Your task to perform on an android device: Open CNN.com Image 0: 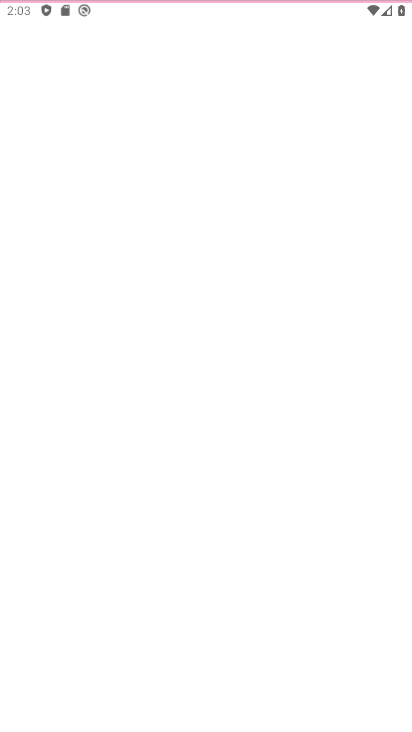
Step 0: click (201, 23)
Your task to perform on an android device: Open CNN.com Image 1: 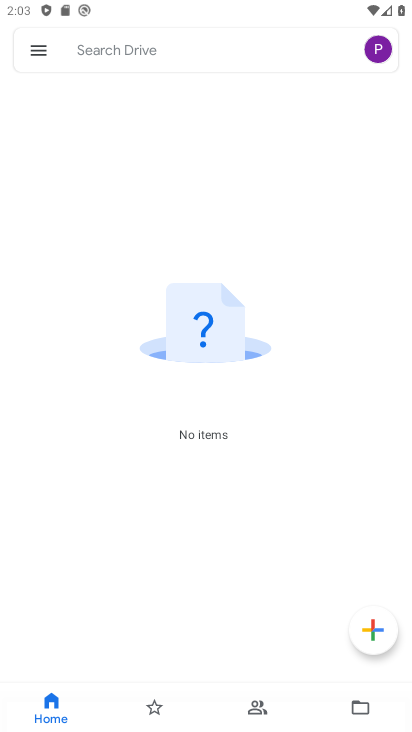
Step 1: press home button
Your task to perform on an android device: Open CNN.com Image 2: 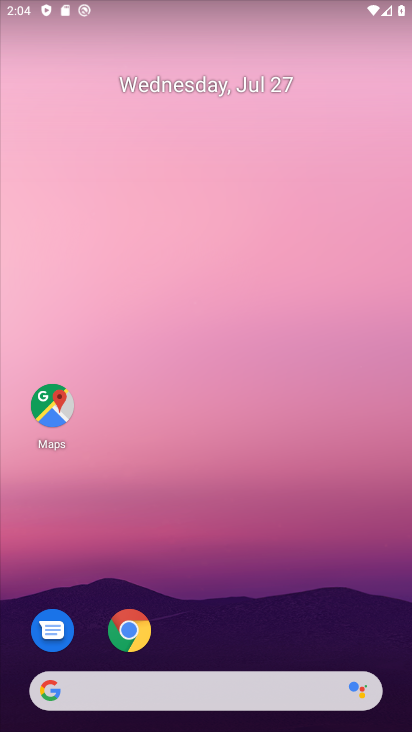
Step 2: click (134, 617)
Your task to perform on an android device: Open CNN.com Image 3: 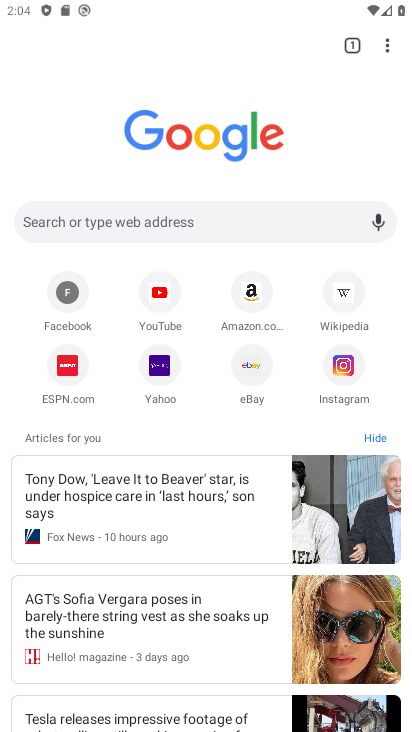
Step 3: click (236, 223)
Your task to perform on an android device: Open CNN.com Image 4: 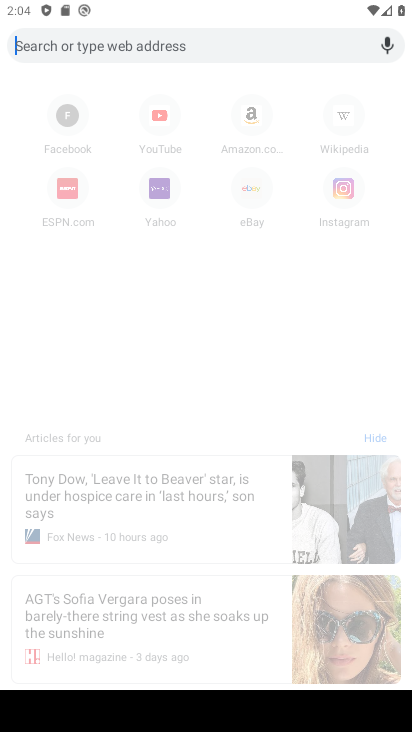
Step 4: type "CNN.com"
Your task to perform on an android device: Open CNN.com Image 5: 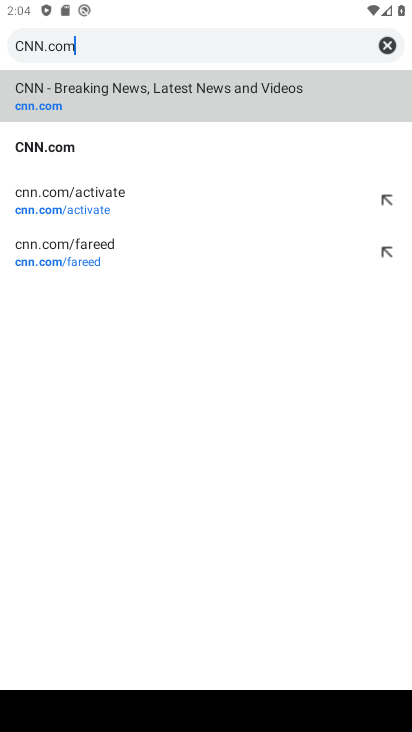
Step 5: click (354, 100)
Your task to perform on an android device: Open CNN.com Image 6: 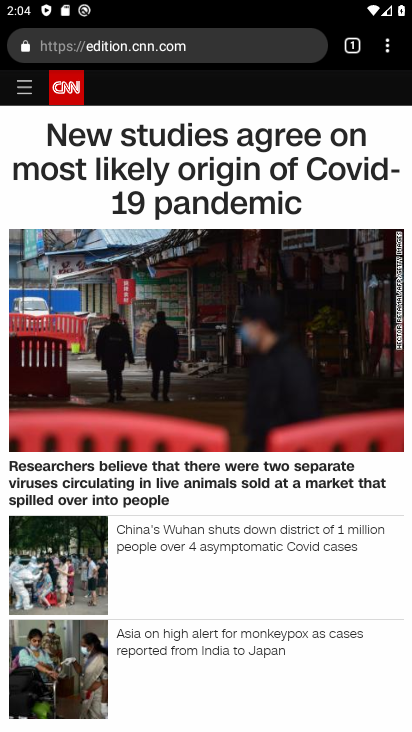
Step 6: task complete